Your task to perform on an android device: Open Youtube and go to the subscriptions tab Image 0: 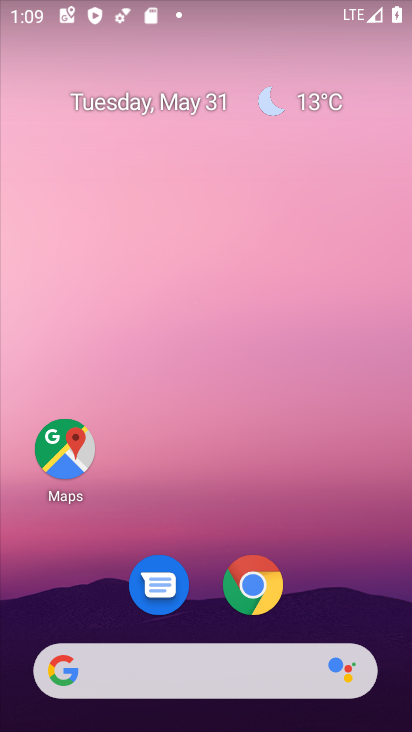
Step 0: drag from (247, 519) to (227, 23)
Your task to perform on an android device: Open Youtube and go to the subscriptions tab Image 1: 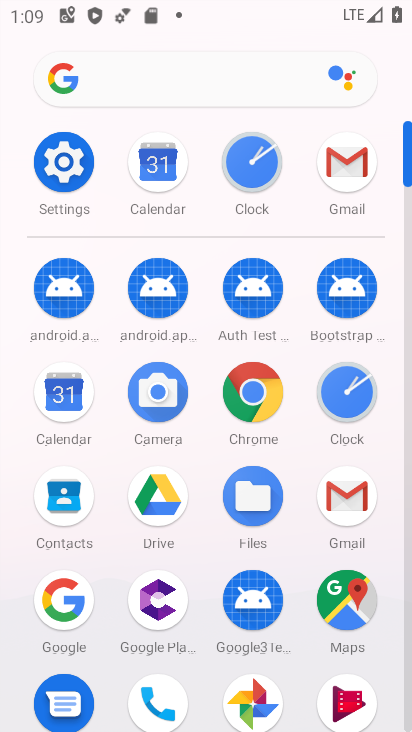
Step 1: drag from (206, 519) to (189, 327)
Your task to perform on an android device: Open Youtube and go to the subscriptions tab Image 2: 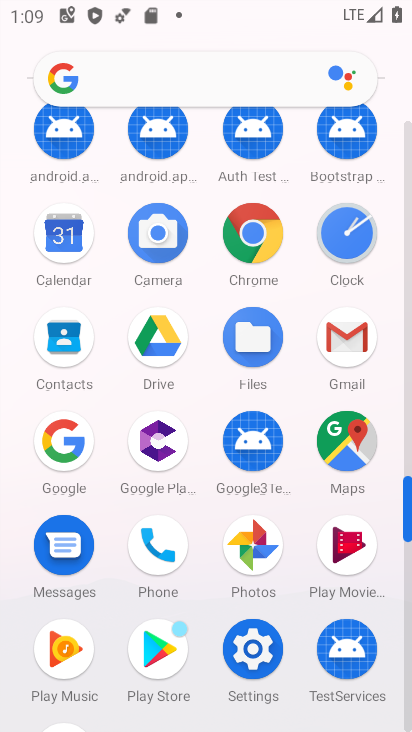
Step 2: drag from (194, 444) to (190, 291)
Your task to perform on an android device: Open Youtube and go to the subscriptions tab Image 3: 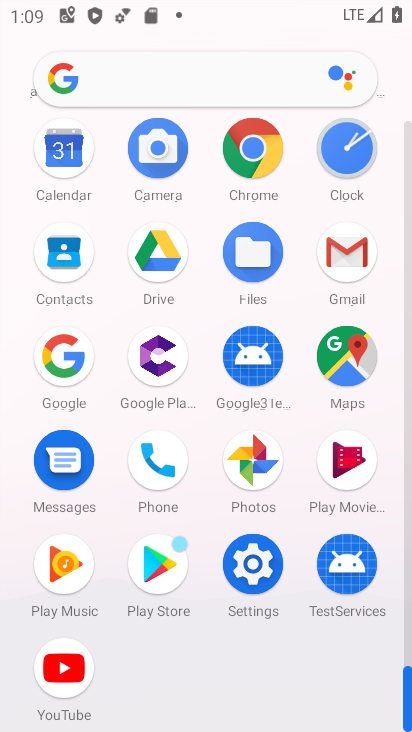
Step 3: click (75, 658)
Your task to perform on an android device: Open Youtube and go to the subscriptions tab Image 4: 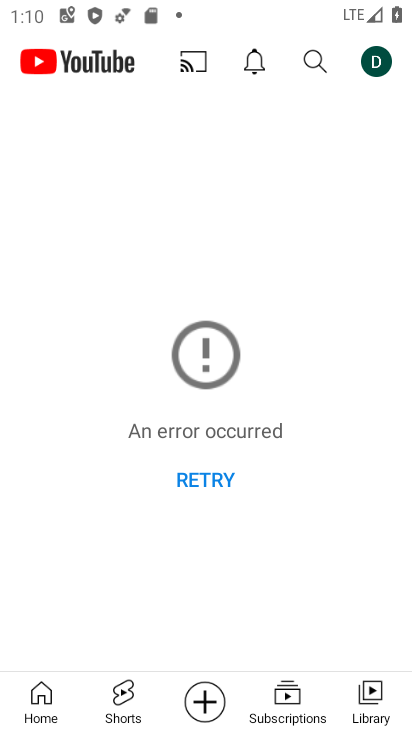
Step 4: click (292, 698)
Your task to perform on an android device: Open Youtube and go to the subscriptions tab Image 5: 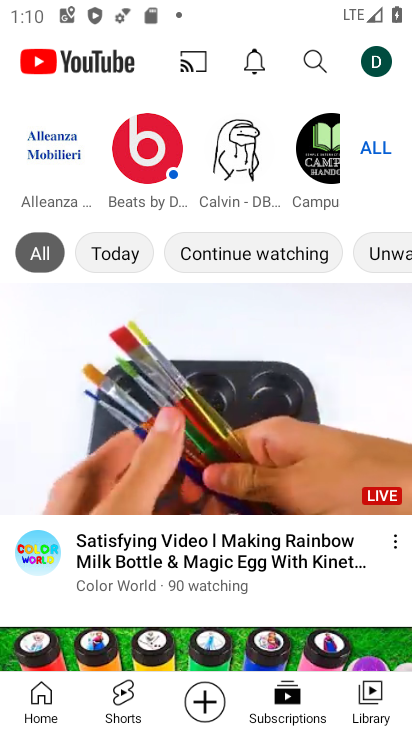
Step 5: task complete